Your task to perform on an android device: turn vacation reply on in the gmail app Image 0: 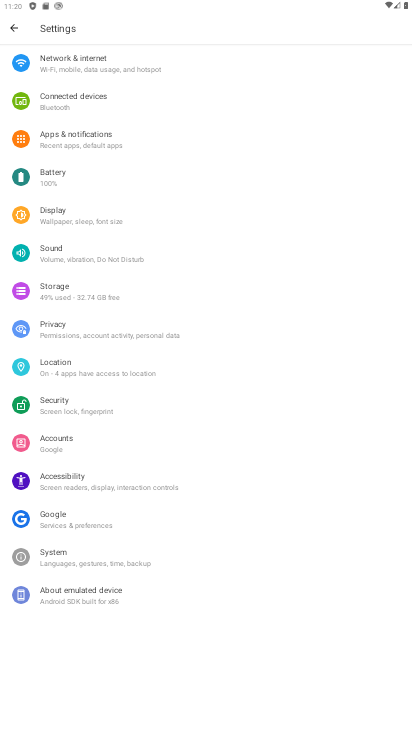
Step 0: press home button
Your task to perform on an android device: turn vacation reply on in the gmail app Image 1: 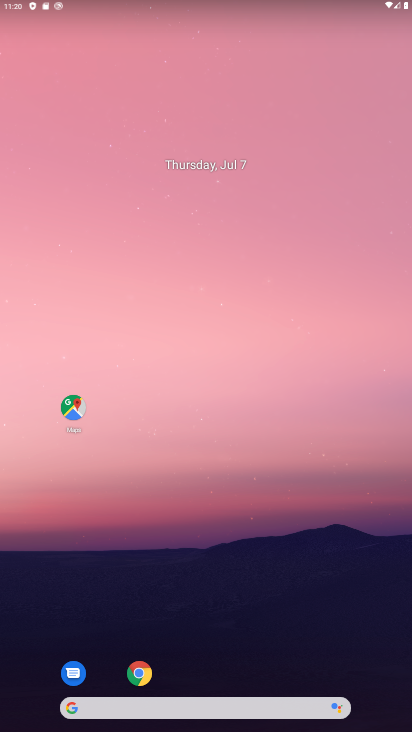
Step 1: drag from (398, 643) to (325, 99)
Your task to perform on an android device: turn vacation reply on in the gmail app Image 2: 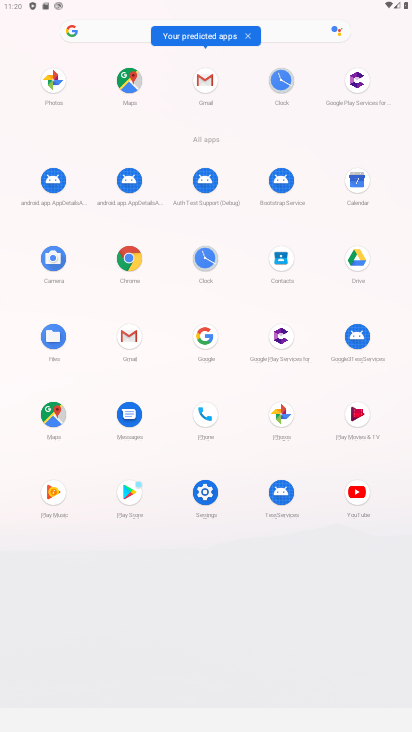
Step 2: click (126, 338)
Your task to perform on an android device: turn vacation reply on in the gmail app Image 3: 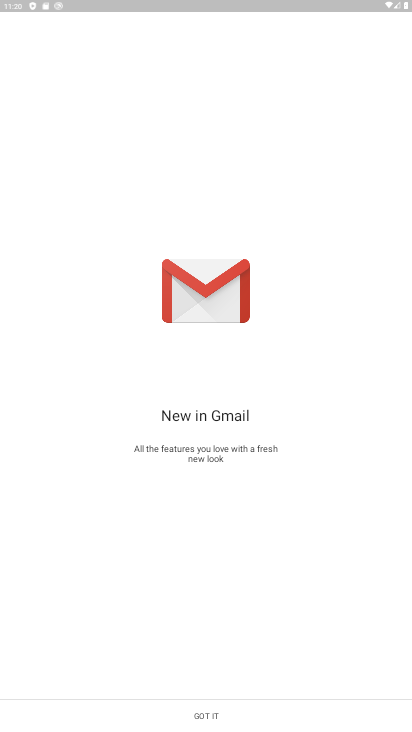
Step 3: click (195, 711)
Your task to perform on an android device: turn vacation reply on in the gmail app Image 4: 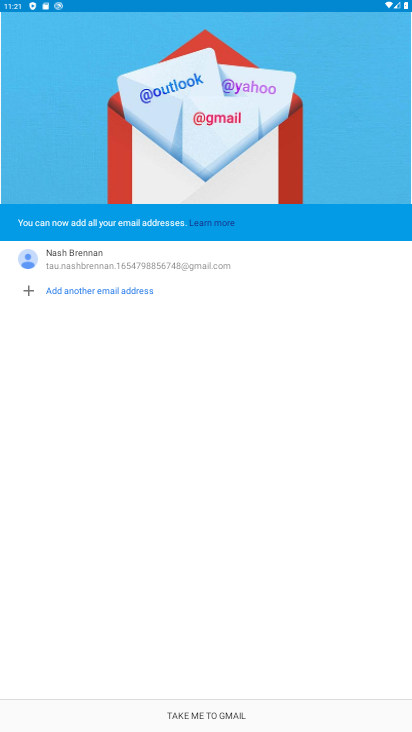
Step 4: press back button
Your task to perform on an android device: turn vacation reply on in the gmail app Image 5: 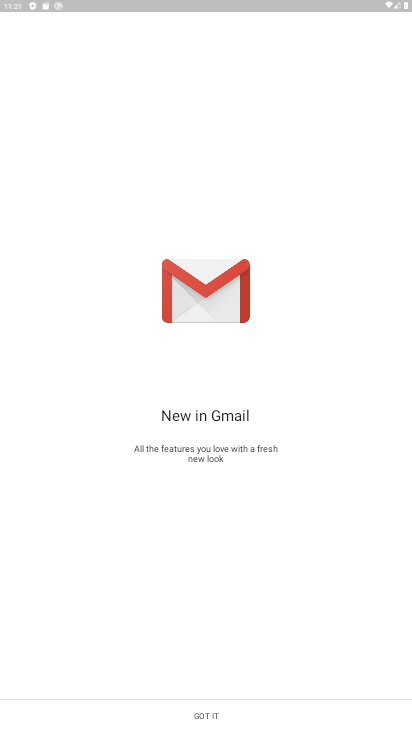
Step 5: click (188, 719)
Your task to perform on an android device: turn vacation reply on in the gmail app Image 6: 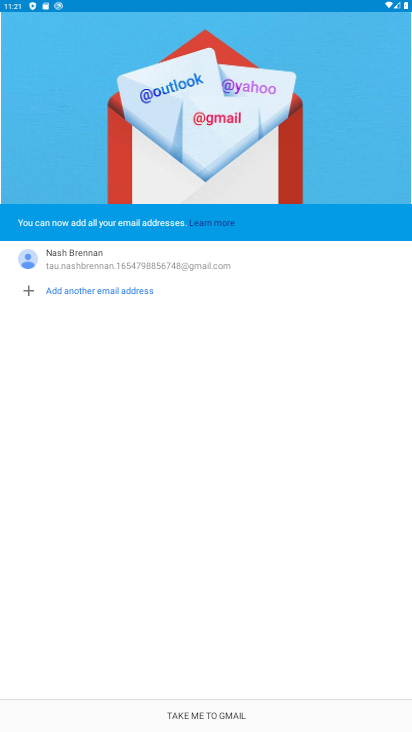
Step 6: click (196, 715)
Your task to perform on an android device: turn vacation reply on in the gmail app Image 7: 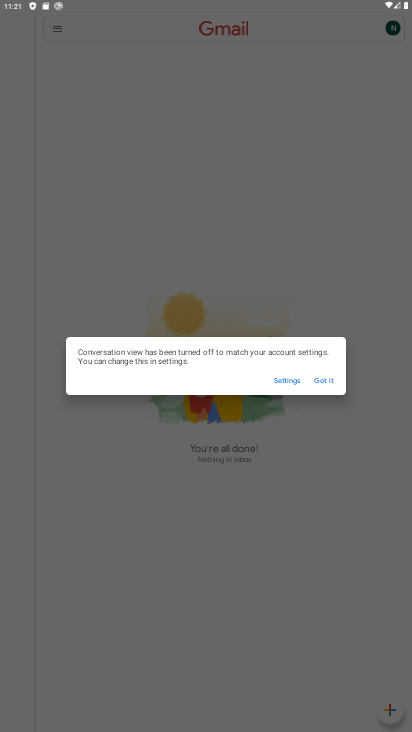
Step 7: click (320, 386)
Your task to perform on an android device: turn vacation reply on in the gmail app Image 8: 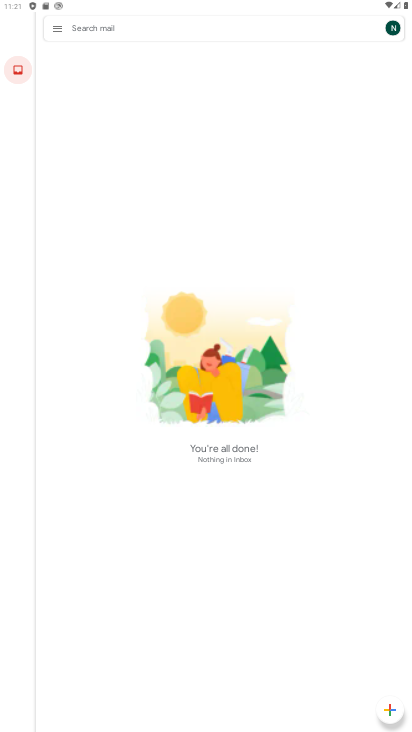
Step 8: click (56, 26)
Your task to perform on an android device: turn vacation reply on in the gmail app Image 9: 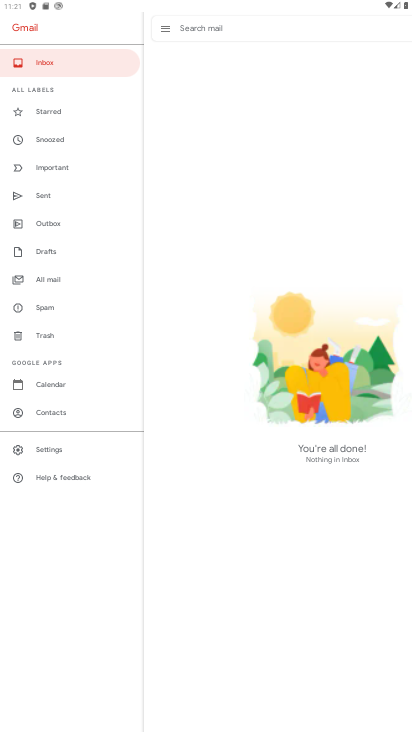
Step 9: click (45, 452)
Your task to perform on an android device: turn vacation reply on in the gmail app Image 10: 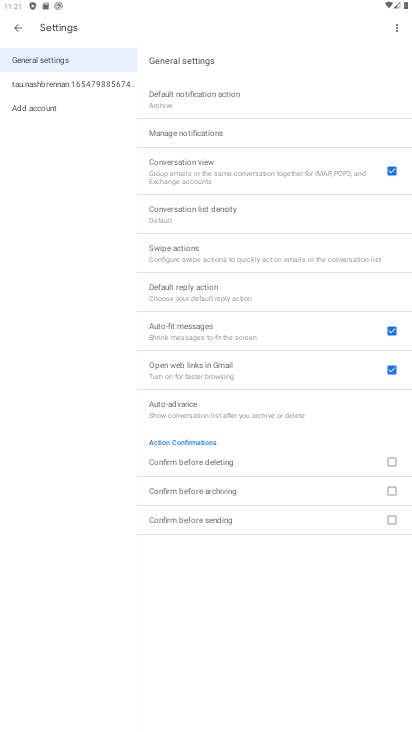
Step 10: click (90, 81)
Your task to perform on an android device: turn vacation reply on in the gmail app Image 11: 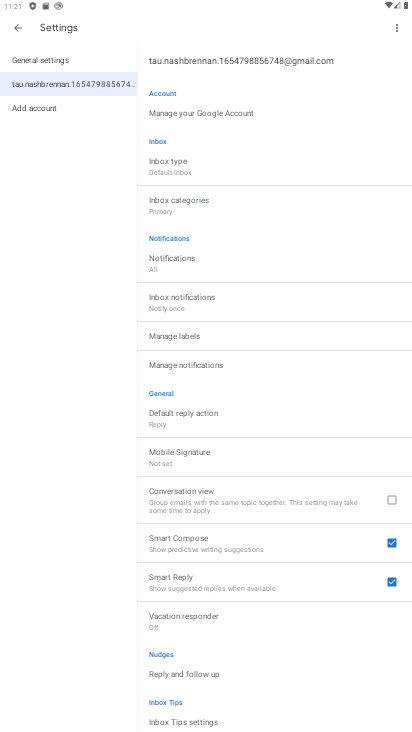
Step 11: click (186, 618)
Your task to perform on an android device: turn vacation reply on in the gmail app Image 12: 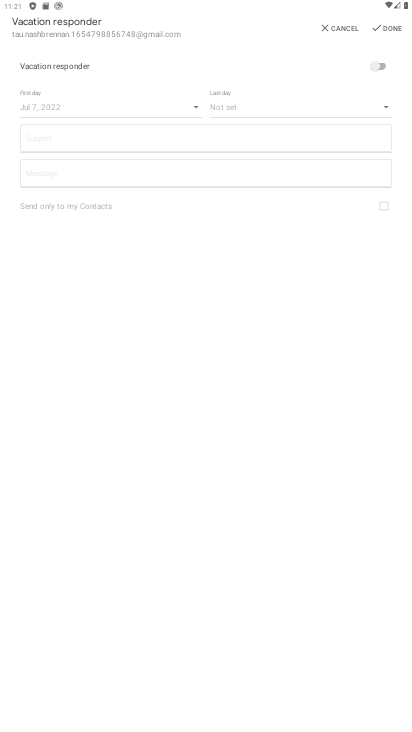
Step 12: click (385, 64)
Your task to perform on an android device: turn vacation reply on in the gmail app Image 13: 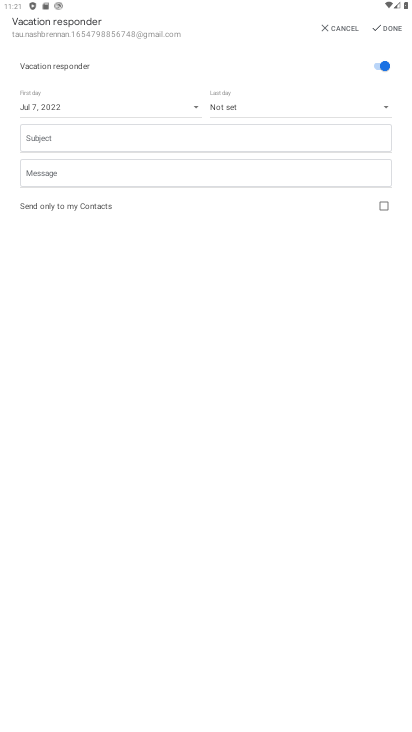
Step 13: task complete